Your task to perform on an android device: Open Maps and search for coffee Image 0: 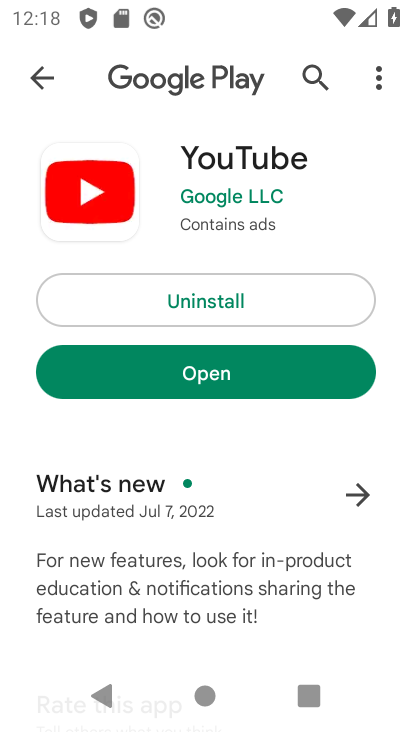
Step 0: press home button
Your task to perform on an android device: Open Maps and search for coffee Image 1: 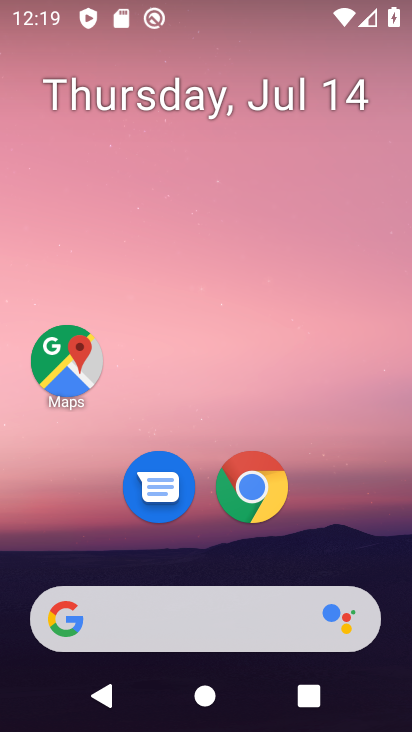
Step 1: drag from (263, 666) to (255, 198)
Your task to perform on an android device: Open Maps and search for coffee Image 2: 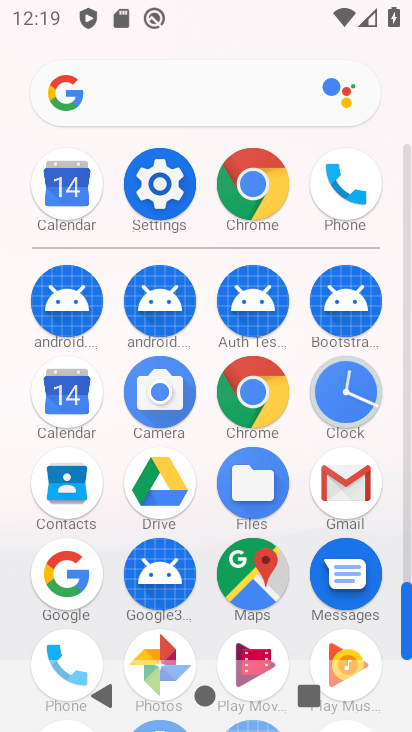
Step 2: drag from (212, 439) to (207, 204)
Your task to perform on an android device: Open Maps and search for coffee Image 3: 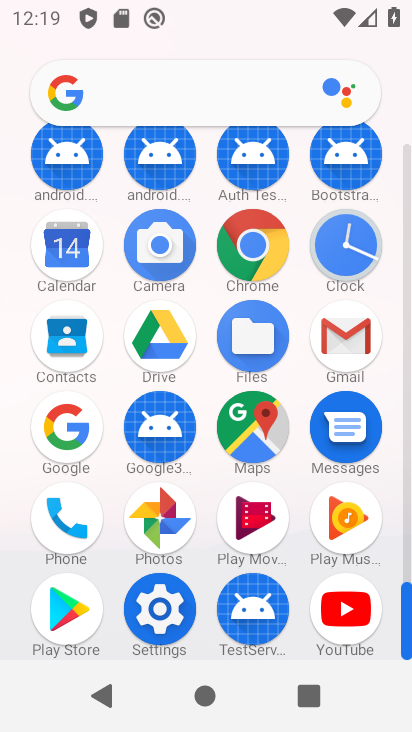
Step 3: click (246, 450)
Your task to perform on an android device: Open Maps and search for coffee Image 4: 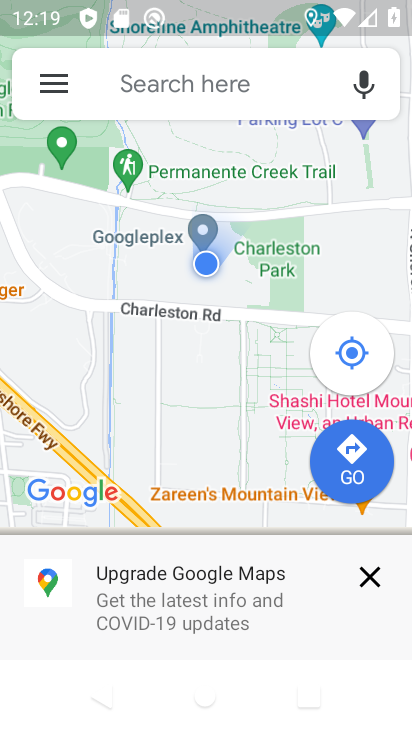
Step 4: click (375, 587)
Your task to perform on an android device: Open Maps and search for coffee Image 5: 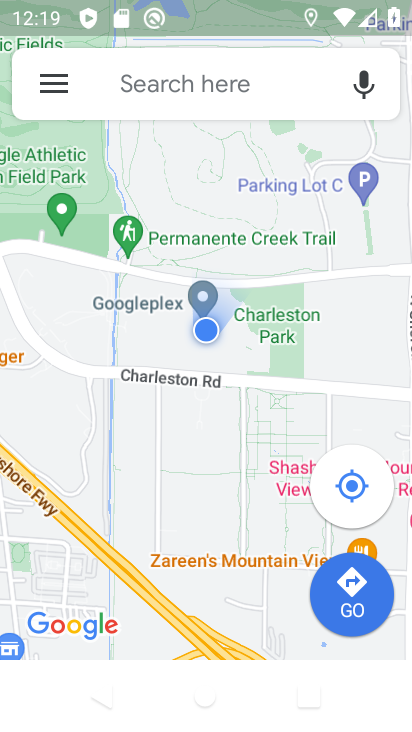
Step 5: click (216, 85)
Your task to perform on an android device: Open Maps and search for coffee Image 6: 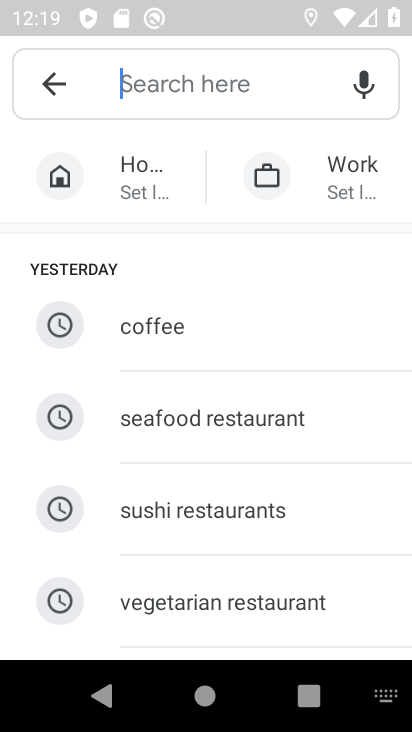
Step 6: click (215, 341)
Your task to perform on an android device: Open Maps and search for coffee Image 7: 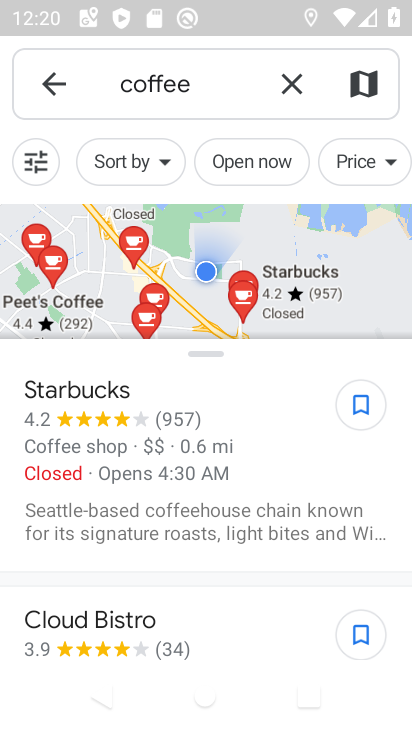
Step 7: task complete